Your task to perform on an android device: What's the weather today? Image 0: 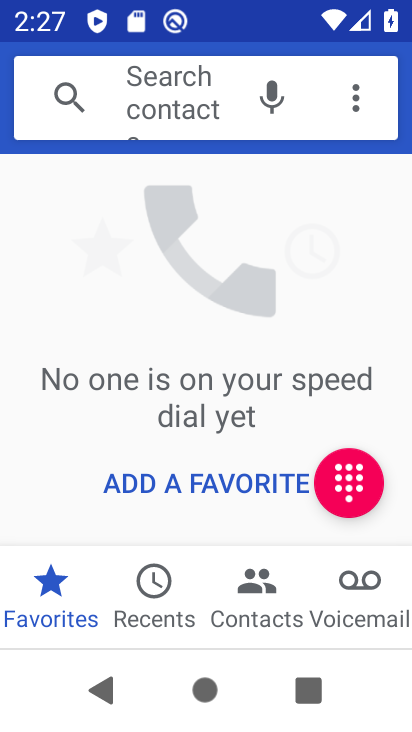
Step 0: press home button
Your task to perform on an android device: What's the weather today? Image 1: 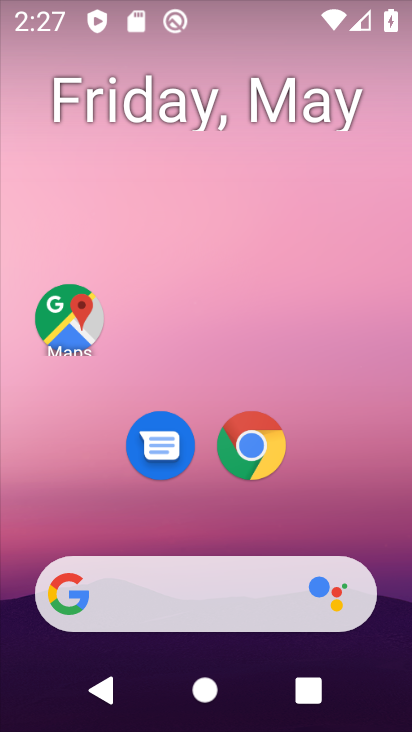
Step 1: task complete